Your task to perform on an android device: Clear all items from cart on amazon.com. Search for bose soundsport free on amazon.com, select the first entry, add it to the cart, then select checkout. Image 0: 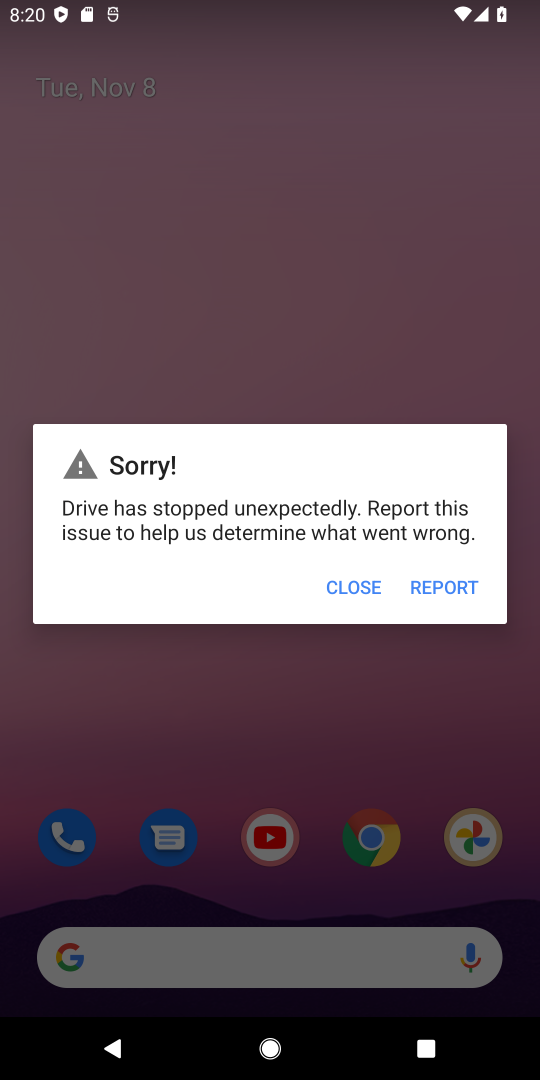
Step 0: click (348, 580)
Your task to perform on an android device: Clear all items from cart on amazon.com. Search for bose soundsport free on amazon.com, select the first entry, add it to the cart, then select checkout. Image 1: 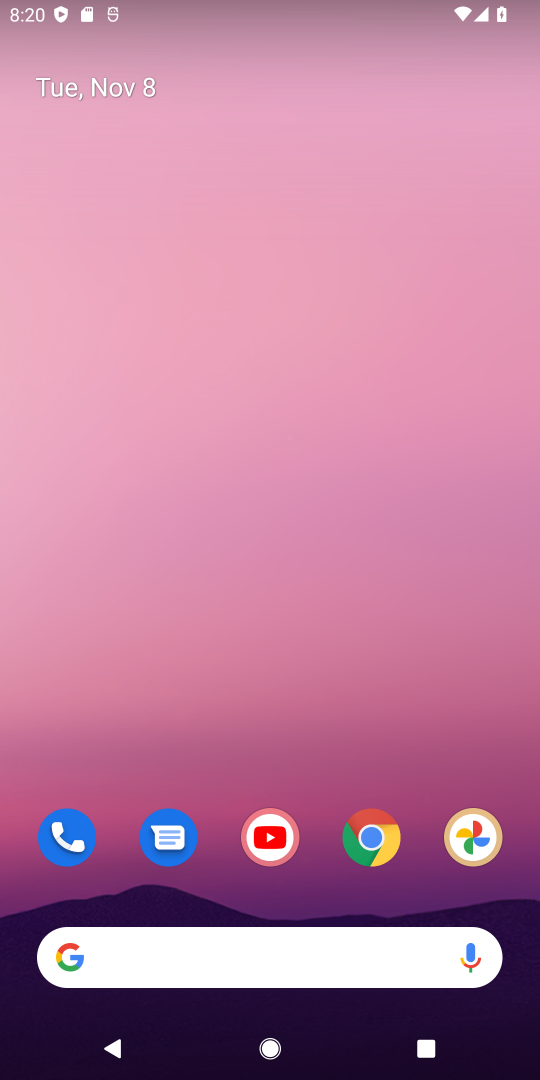
Step 1: press home button
Your task to perform on an android device: Clear all items from cart on amazon.com. Search for bose soundsport free on amazon.com, select the first entry, add it to the cart, then select checkout. Image 2: 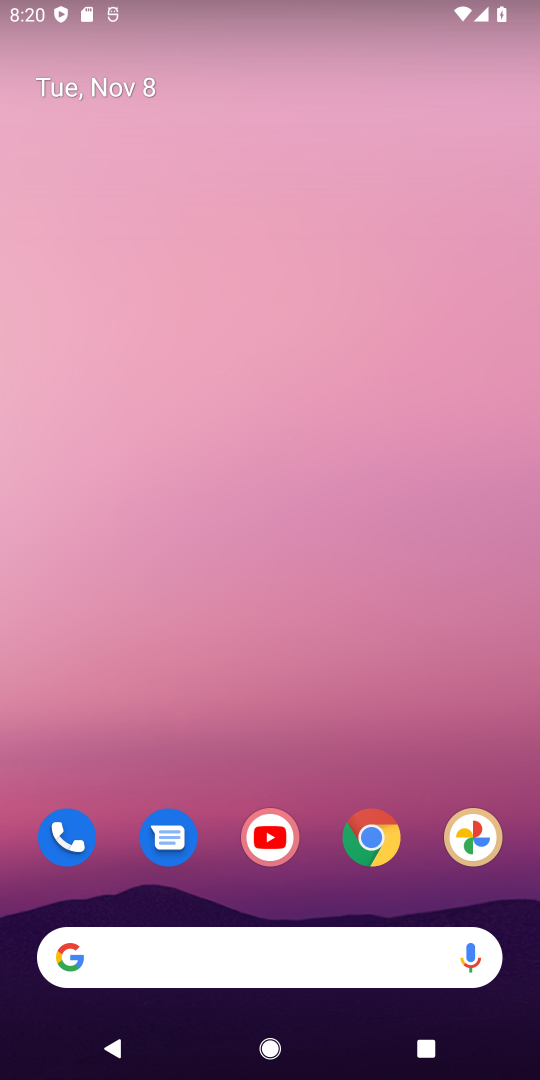
Step 2: click (369, 831)
Your task to perform on an android device: Clear all items from cart on amazon.com. Search for bose soundsport free on amazon.com, select the first entry, add it to the cart, then select checkout. Image 3: 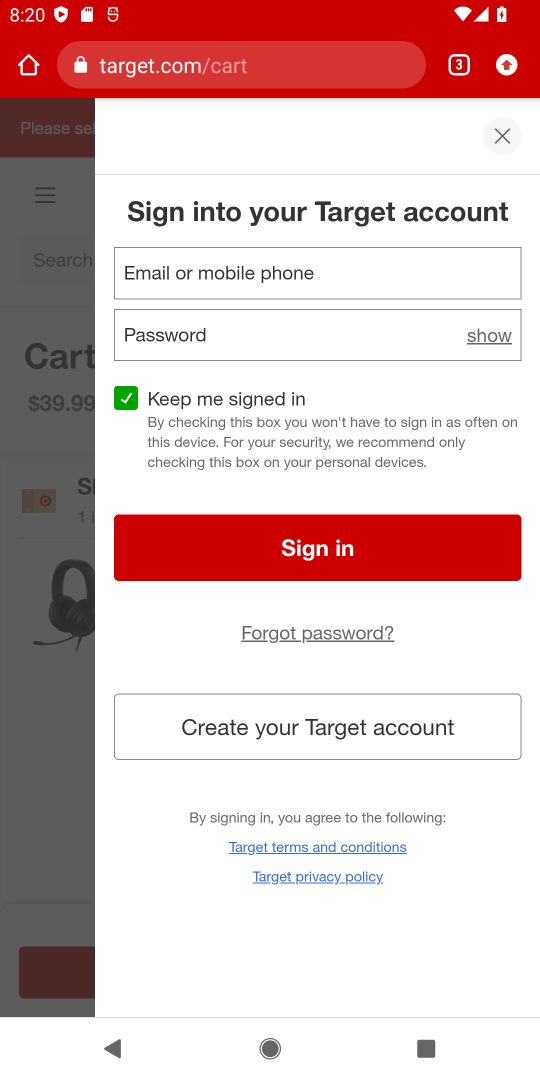
Step 3: click (505, 125)
Your task to perform on an android device: Clear all items from cart on amazon.com. Search for bose soundsport free on amazon.com, select the first entry, add it to the cart, then select checkout. Image 4: 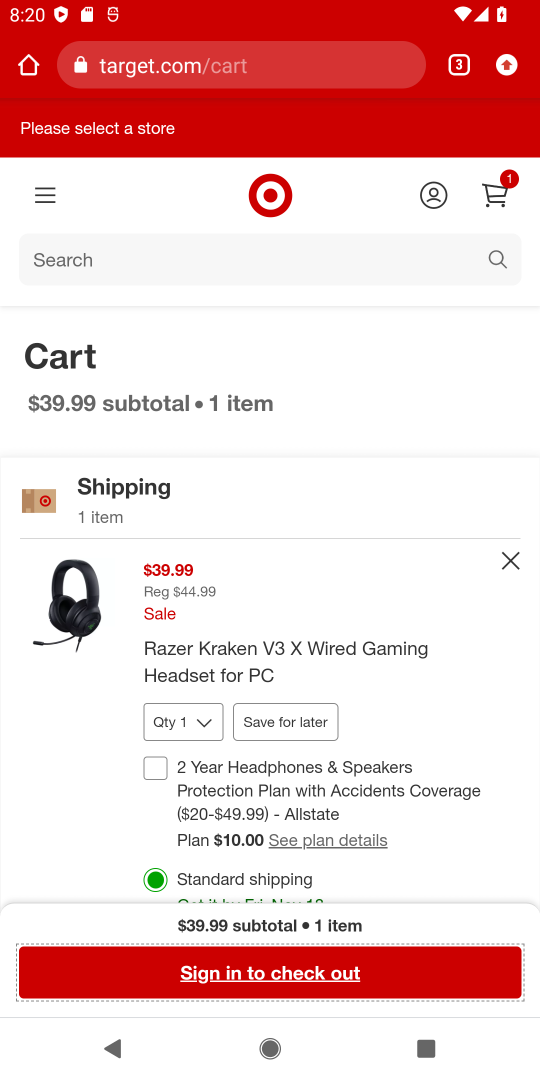
Step 4: click (457, 70)
Your task to perform on an android device: Clear all items from cart on amazon.com. Search for bose soundsport free on amazon.com, select the first entry, add it to the cart, then select checkout. Image 5: 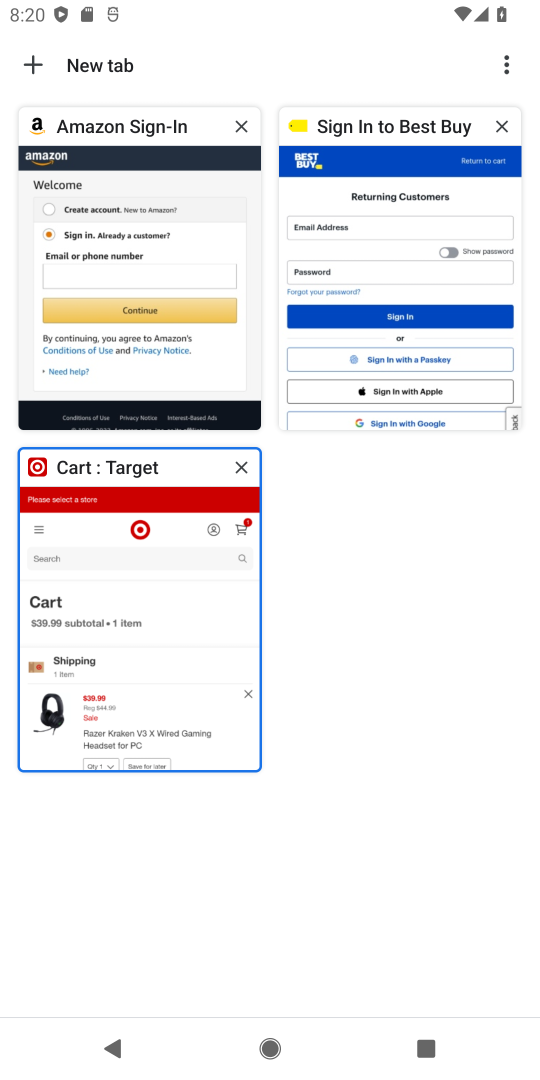
Step 5: click (33, 58)
Your task to perform on an android device: Clear all items from cart on amazon.com. Search for bose soundsport free on amazon.com, select the first entry, add it to the cart, then select checkout. Image 6: 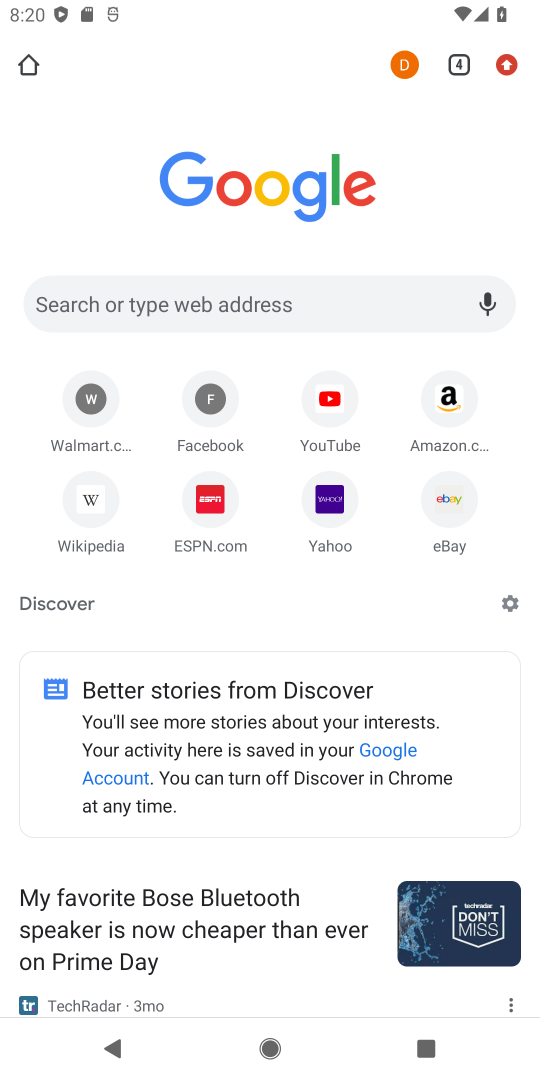
Step 6: click (151, 251)
Your task to perform on an android device: Clear all items from cart on amazon.com. Search for bose soundsport free on amazon.com, select the first entry, add it to the cart, then select checkout. Image 7: 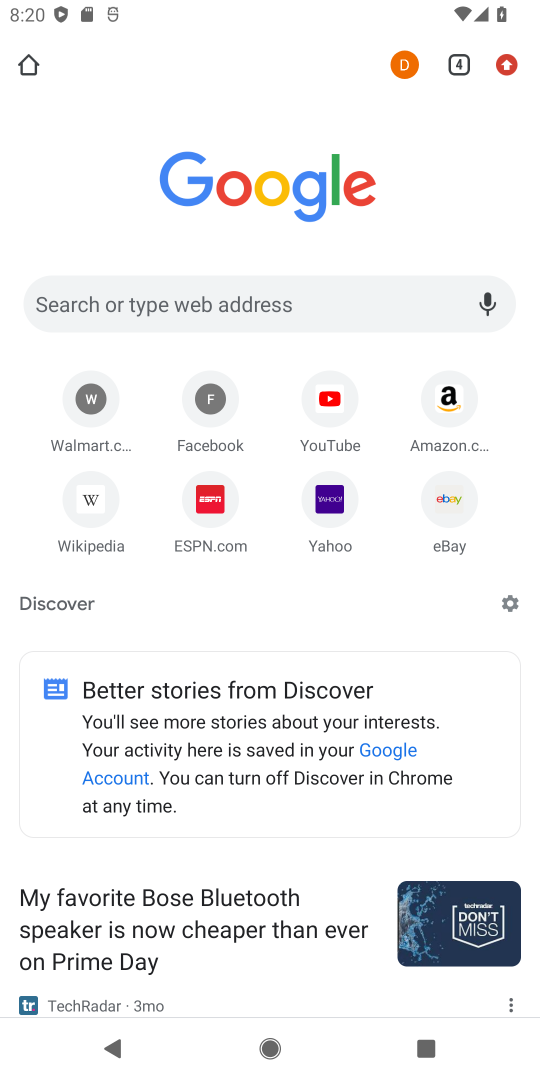
Step 7: click (459, 66)
Your task to perform on an android device: Clear all items from cart on amazon.com. Search for bose soundsport free on amazon.com, select the first entry, add it to the cart, then select checkout. Image 8: 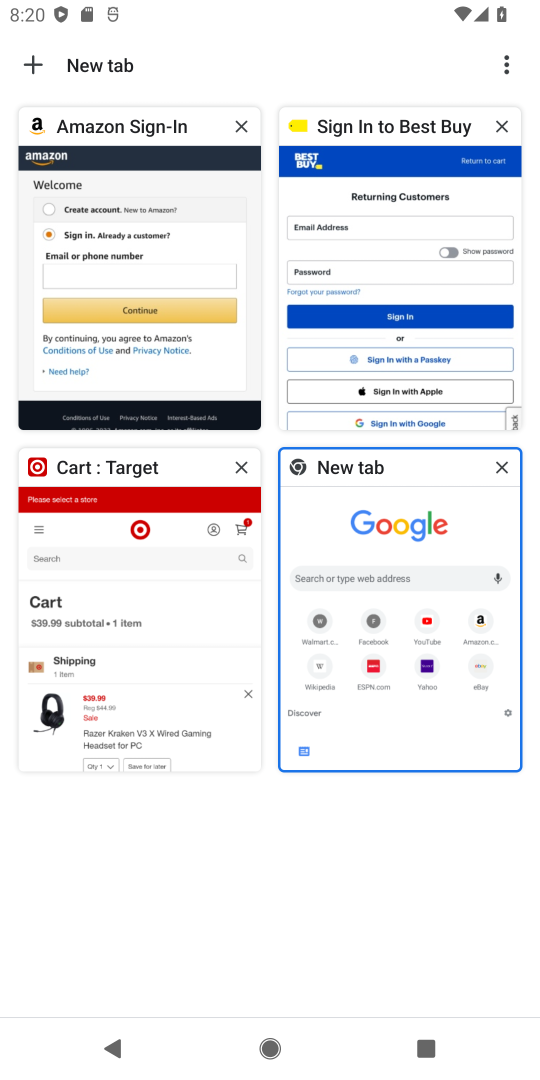
Step 8: click (88, 183)
Your task to perform on an android device: Clear all items from cart on amazon.com. Search for bose soundsport free on amazon.com, select the first entry, add it to the cart, then select checkout. Image 9: 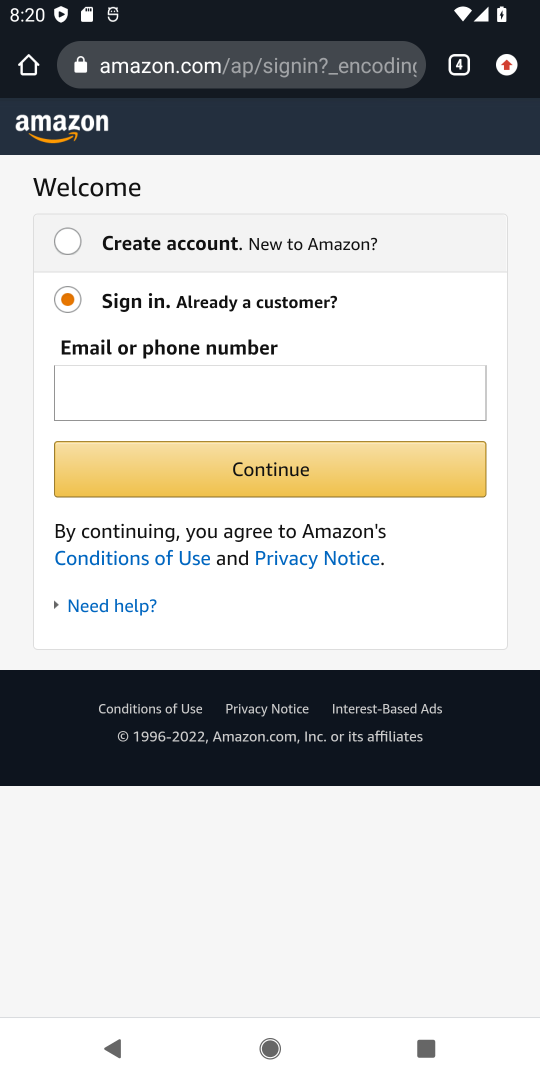
Step 9: press back button
Your task to perform on an android device: Clear all items from cart on amazon.com. Search for bose soundsport free on amazon.com, select the first entry, add it to the cart, then select checkout. Image 10: 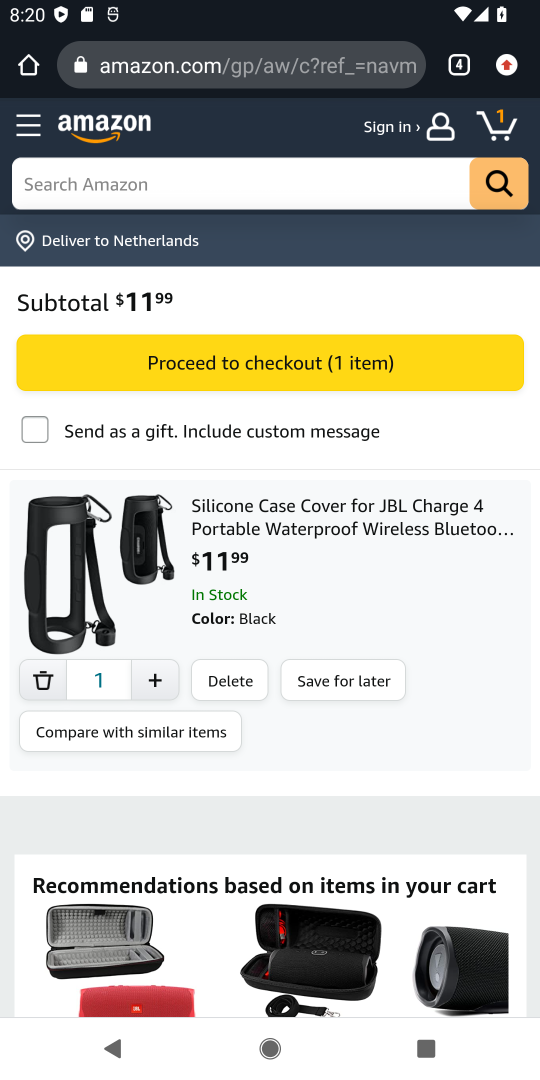
Step 10: click (228, 668)
Your task to perform on an android device: Clear all items from cart on amazon.com. Search for bose soundsport free on amazon.com, select the first entry, add it to the cart, then select checkout. Image 11: 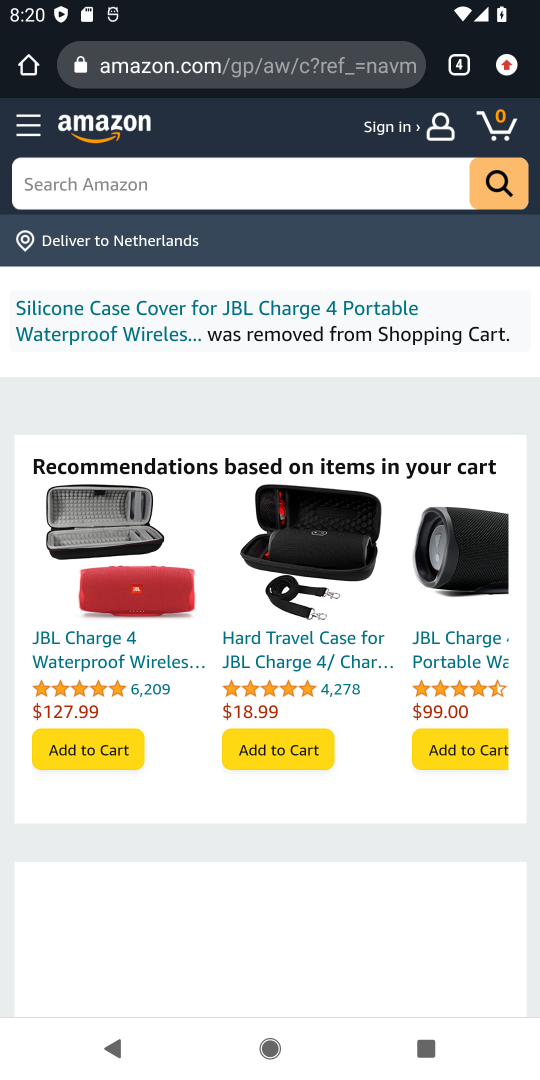
Step 11: click (262, 182)
Your task to perform on an android device: Clear all items from cart on amazon.com. Search for bose soundsport free on amazon.com, select the first entry, add it to the cart, then select checkout. Image 12: 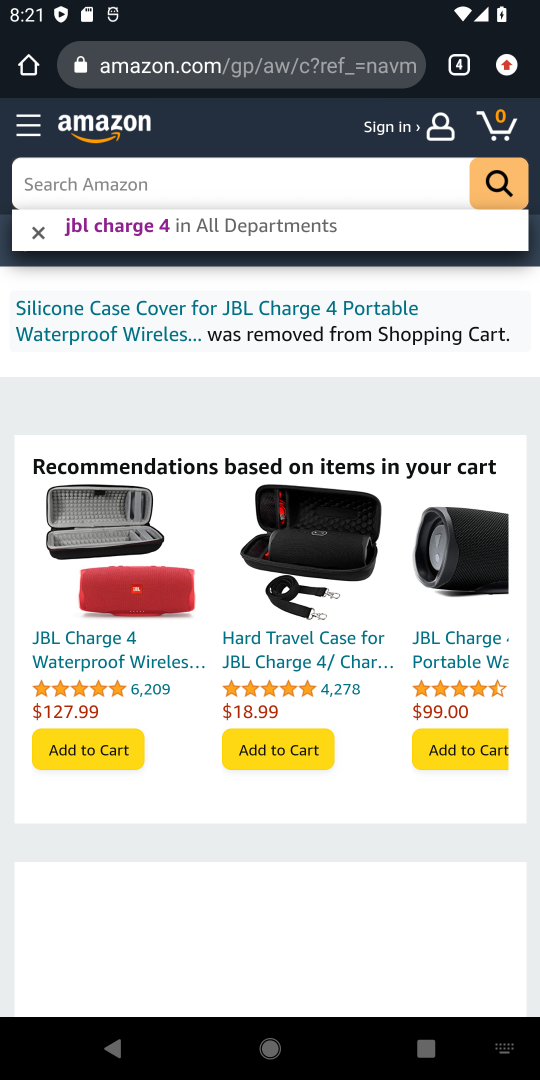
Step 12: type "razer kraken"
Your task to perform on an android device: Clear all items from cart on amazon.com. Search for bose soundsport free on amazon.com, select the first entry, add it to the cart, then select checkout. Image 13: 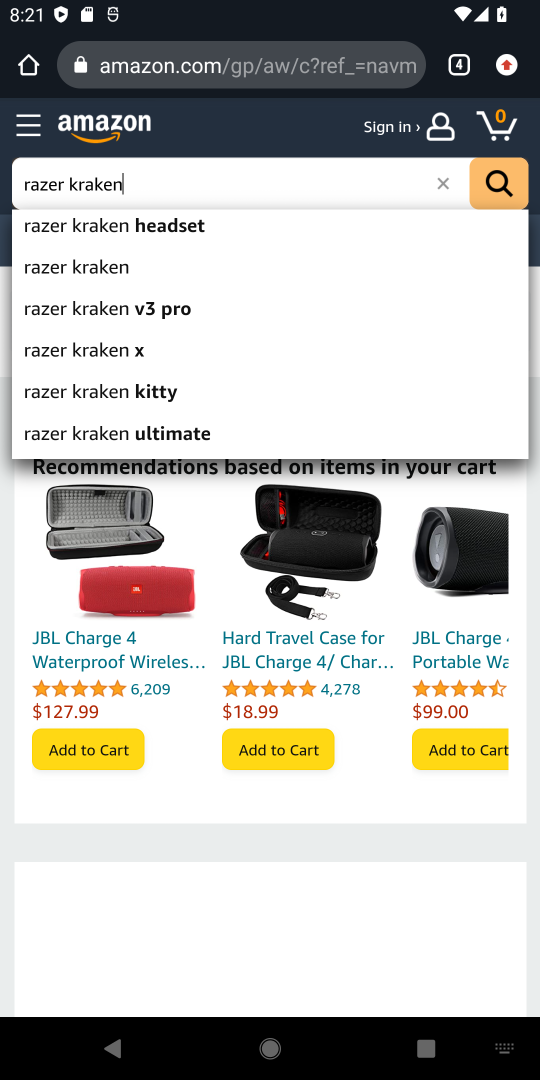
Step 13: click (443, 188)
Your task to perform on an android device: Clear all items from cart on amazon.com. Search for bose soundsport free on amazon.com, select the first entry, add it to the cart, then select checkout. Image 14: 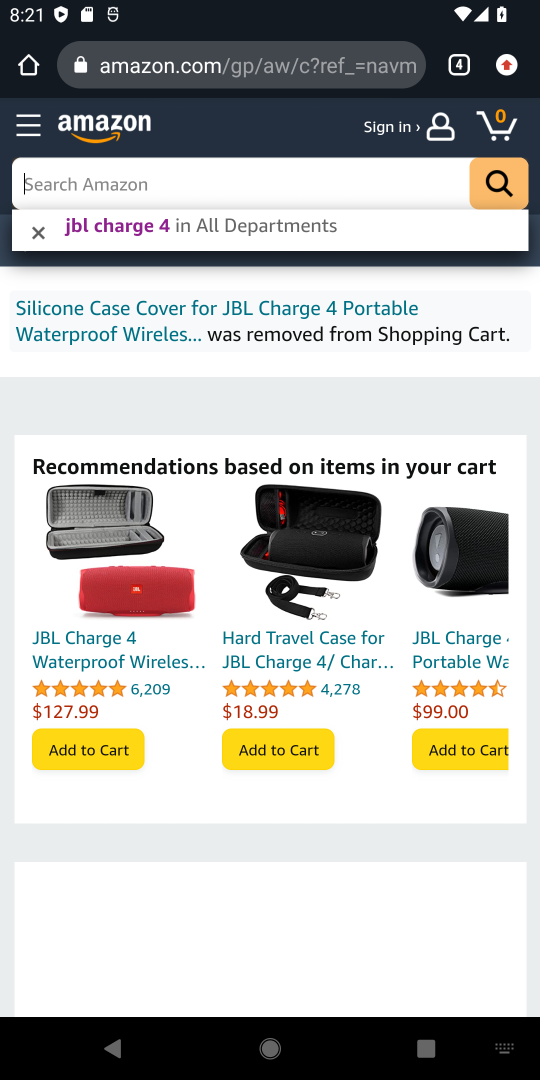
Step 14: type "bose soundspot free"
Your task to perform on an android device: Clear all items from cart on amazon.com. Search for bose soundsport free on amazon.com, select the first entry, add it to the cart, then select checkout. Image 15: 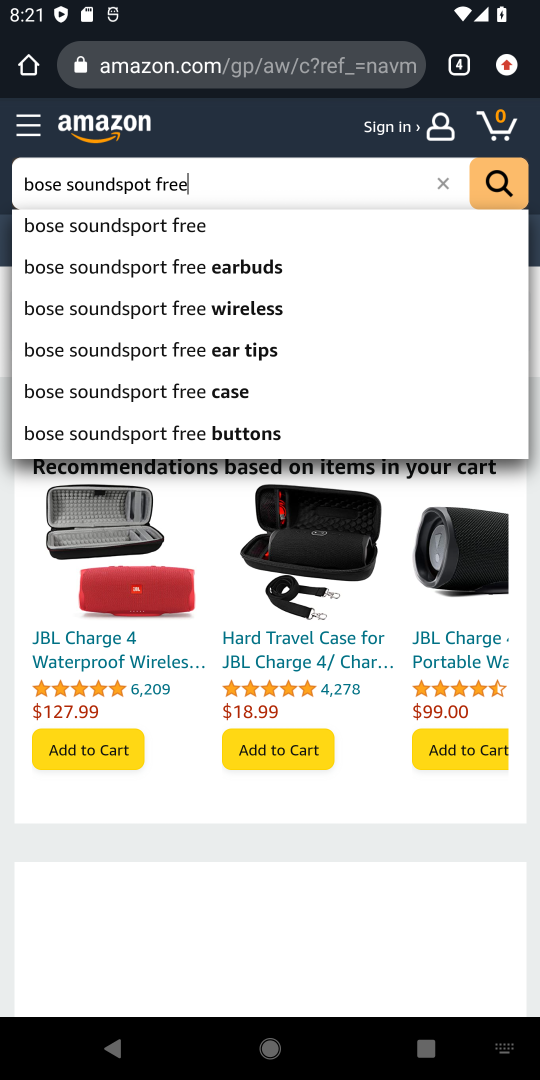
Step 15: click (179, 223)
Your task to perform on an android device: Clear all items from cart on amazon.com. Search for bose soundsport free on amazon.com, select the first entry, add it to the cart, then select checkout. Image 16: 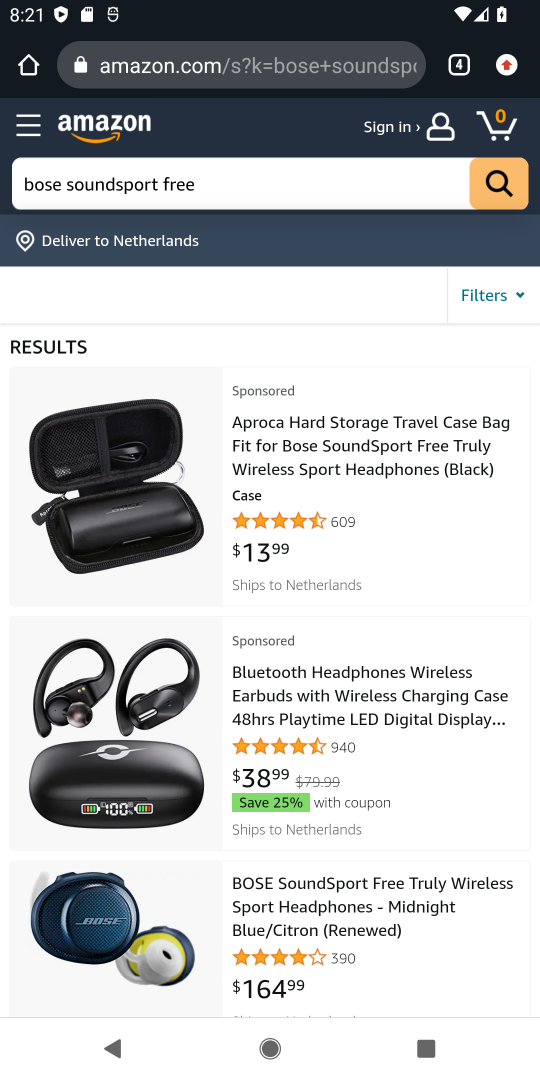
Step 16: click (358, 885)
Your task to perform on an android device: Clear all items from cart on amazon.com. Search for bose soundsport free on amazon.com, select the first entry, add it to the cart, then select checkout. Image 17: 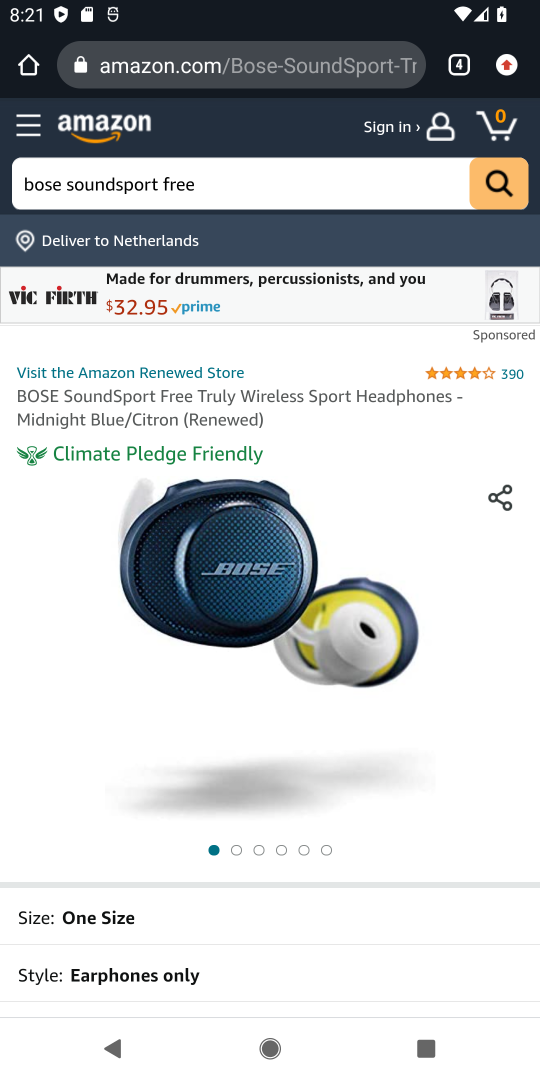
Step 17: drag from (274, 937) to (358, 530)
Your task to perform on an android device: Clear all items from cart on amazon.com. Search for bose soundsport free on amazon.com, select the first entry, add it to the cart, then select checkout. Image 18: 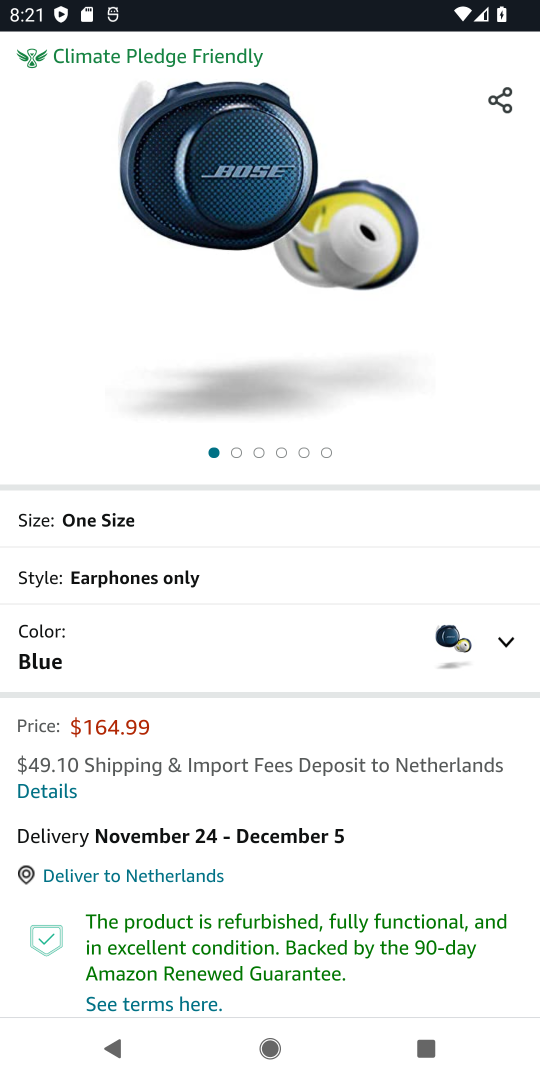
Step 18: drag from (263, 805) to (364, 467)
Your task to perform on an android device: Clear all items from cart on amazon.com. Search for bose soundsport free on amazon.com, select the first entry, add it to the cart, then select checkout. Image 19: 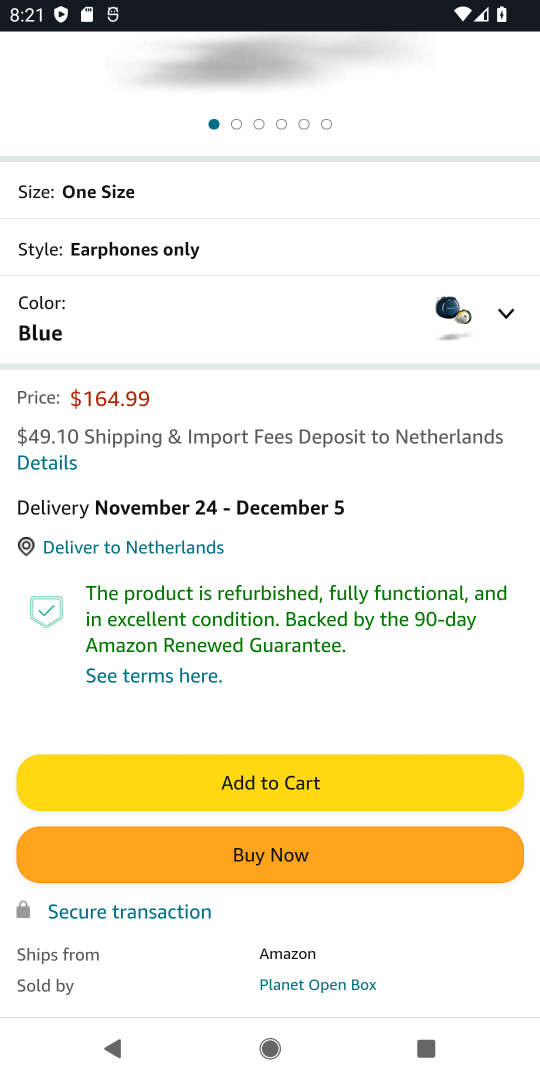
Step 19: click (271, 769)
Your task to perform on an android device: Clear all items from cart on amazon.com. Search for bose soundsport free on amazon.com, select the first entry, add it to the cart, then select checkout. Image 20: 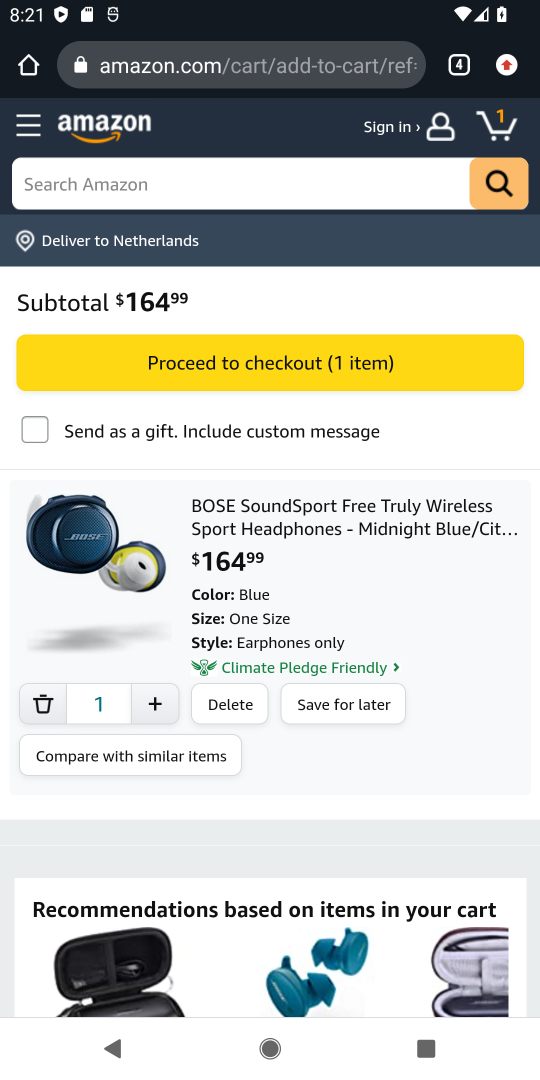
Step 20: task complete